Your task to perform on an android device: Open display settings Image 0: 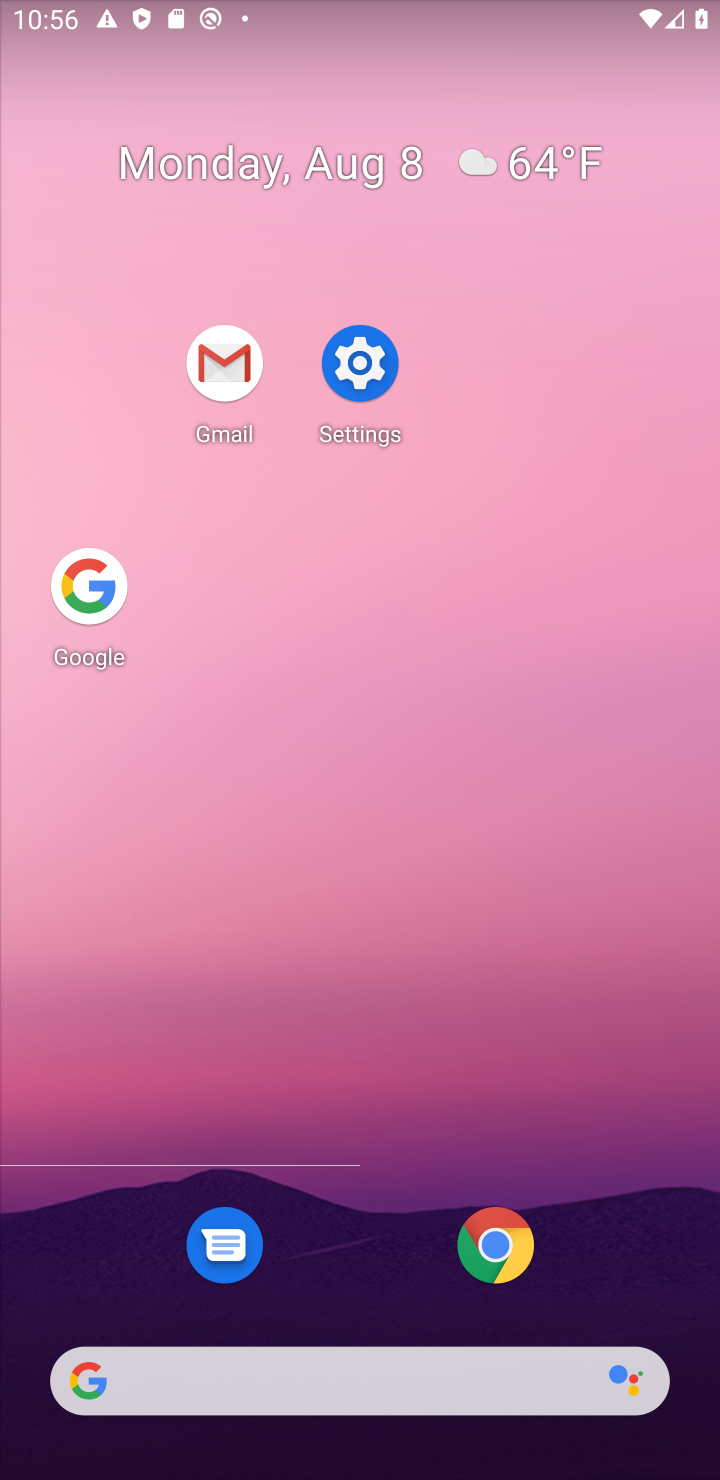
Step 0: click (358, 362)
Your task to perform on an android device: Open display settings Image 1: 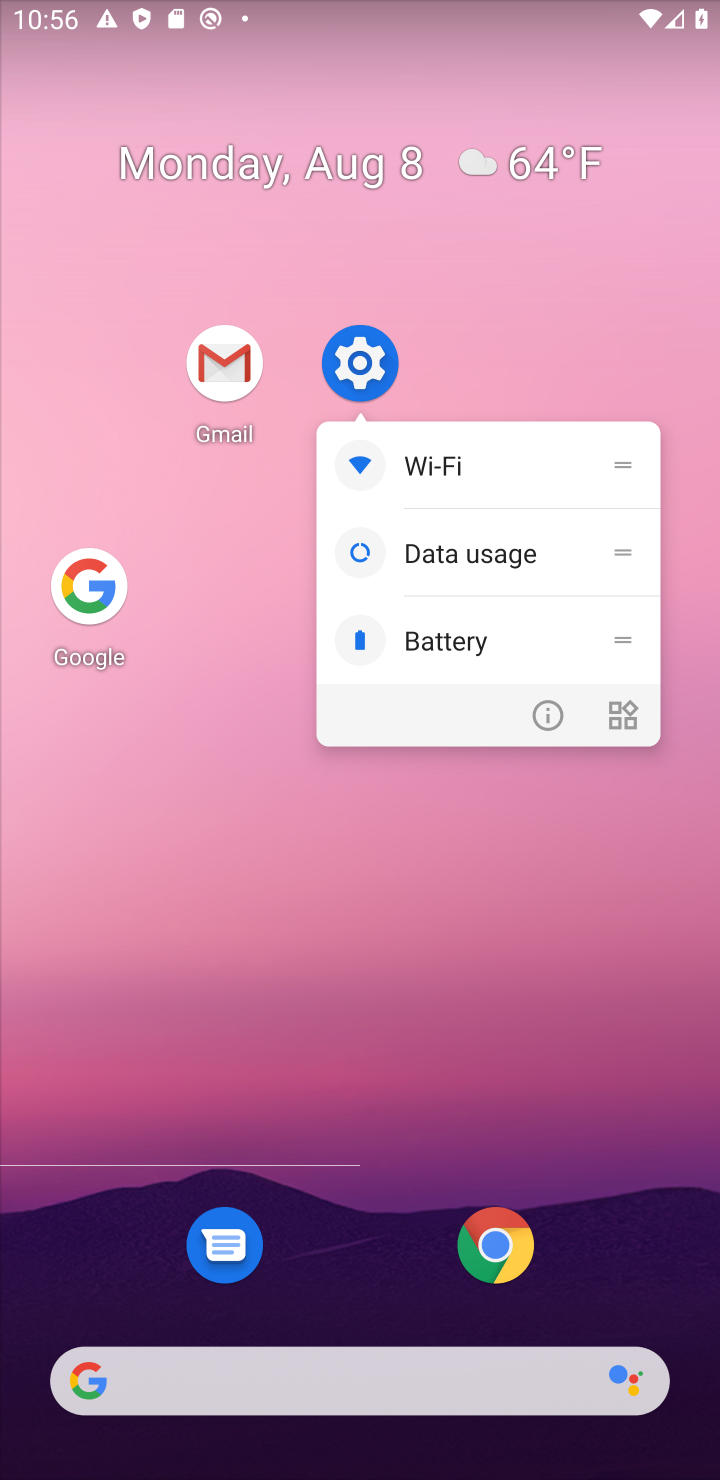
Step 1: click (358, 362)
Your task to perform on an android device: Open display settings Image 2: 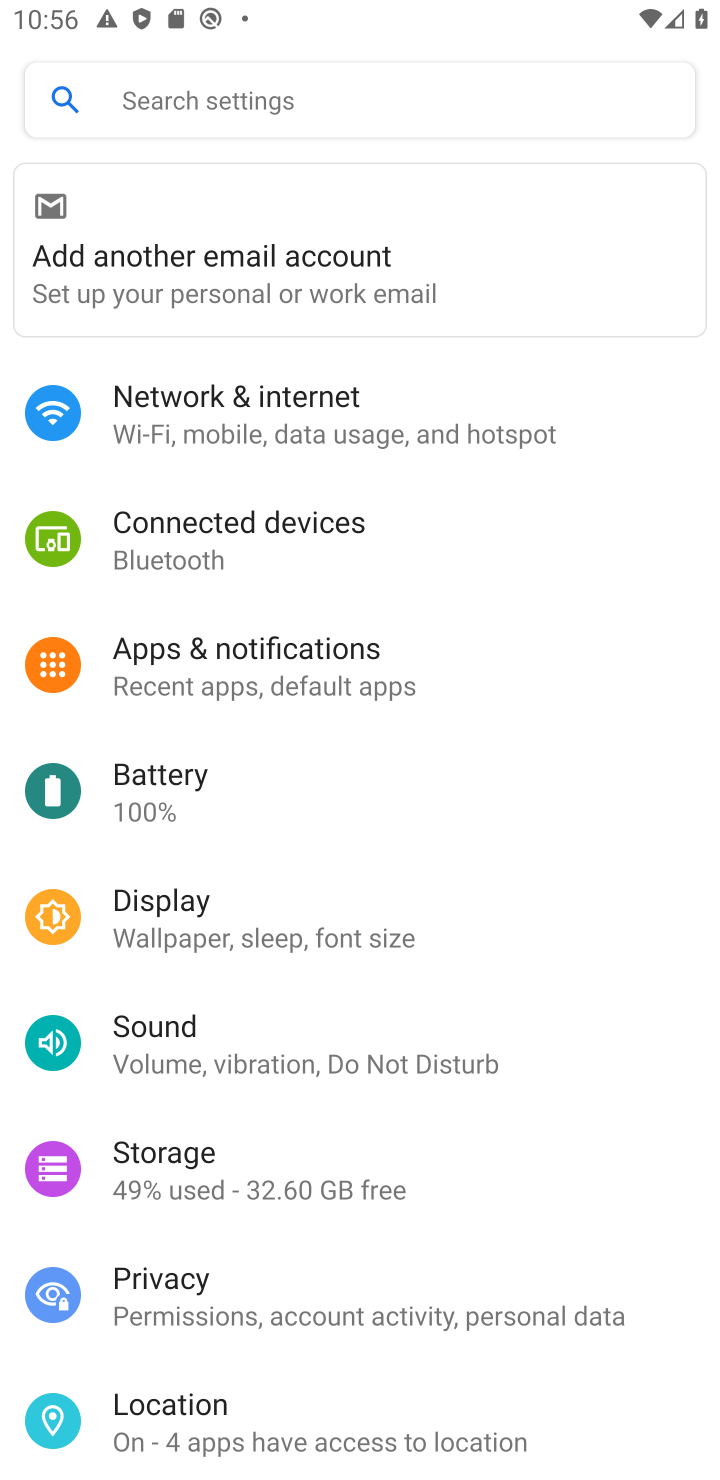
Step 2: click (338, 946)
Your task to perform on an android device: Open display settings Image 3: 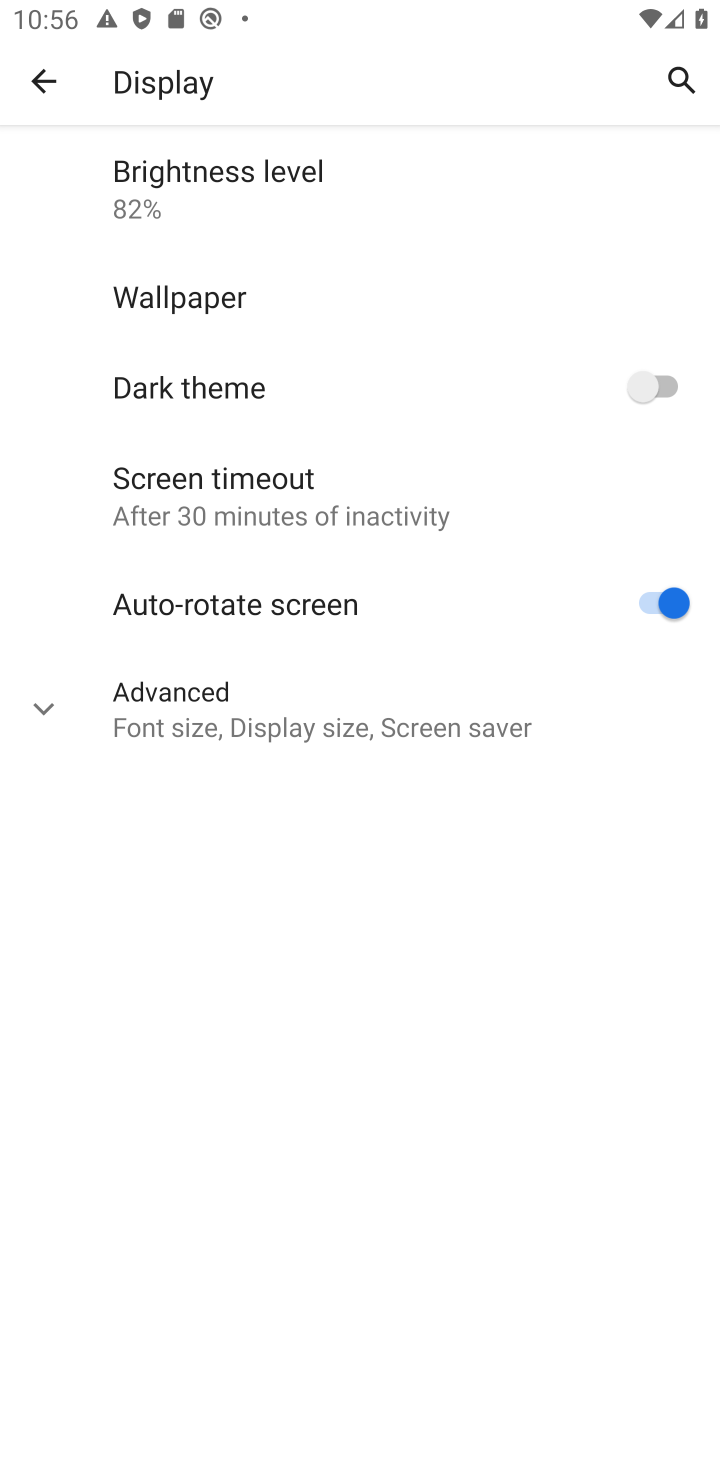
Step 3: task complete